Your task to perform on an android device: Toggle the flashlight Image 0: 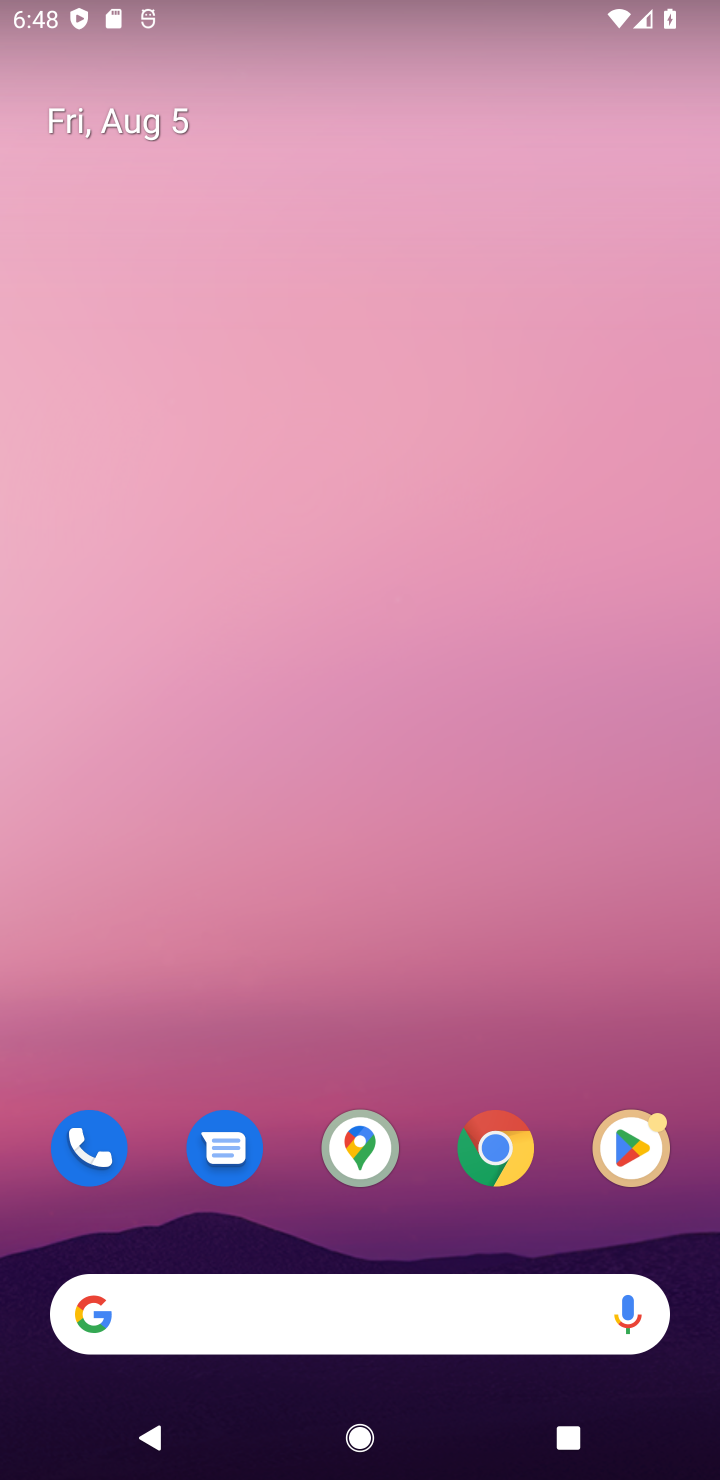
Step 0: drag from (403, 1251) to (397, 54)
Your task to perform on an android device: Toggle the flashlight Image 1: 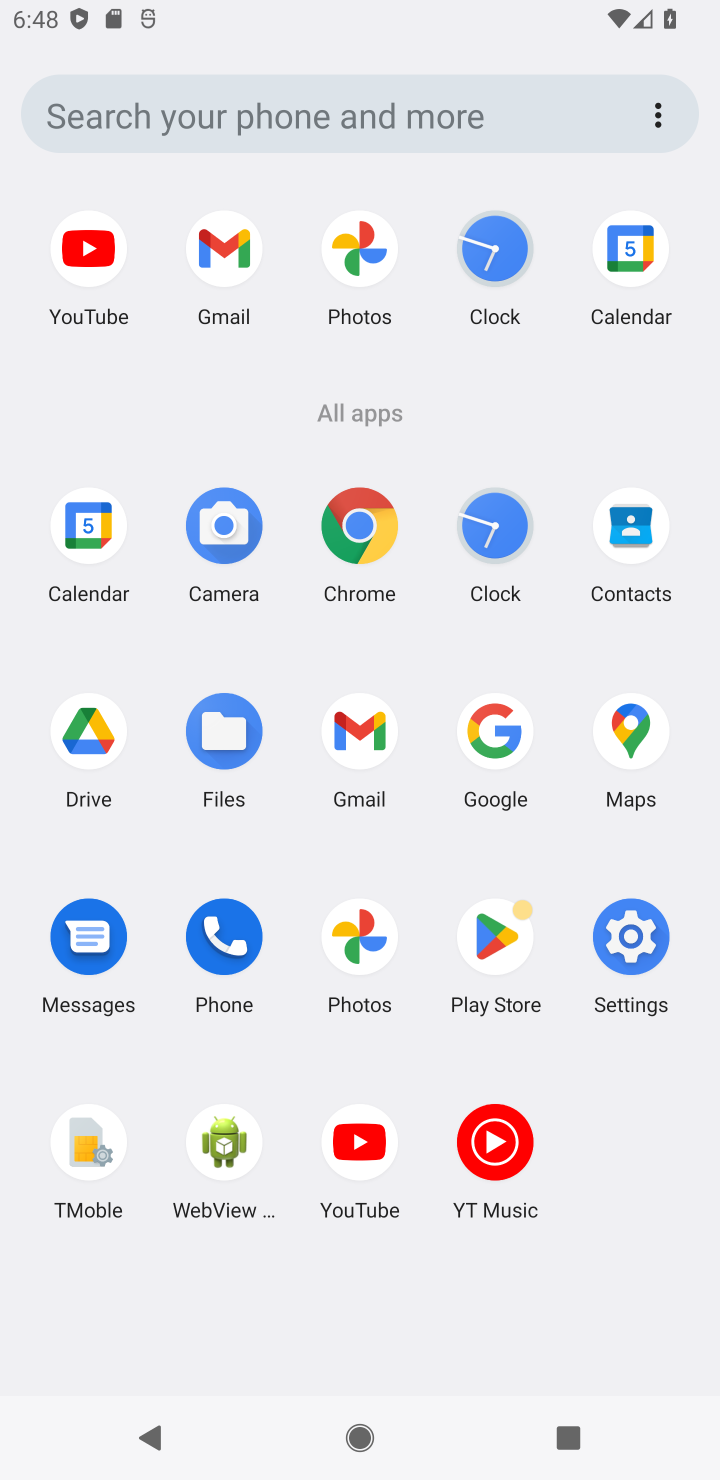
Step 1: click (668, 1047)
Your task to perform on an android device: Toggle the flashlight Image 2: 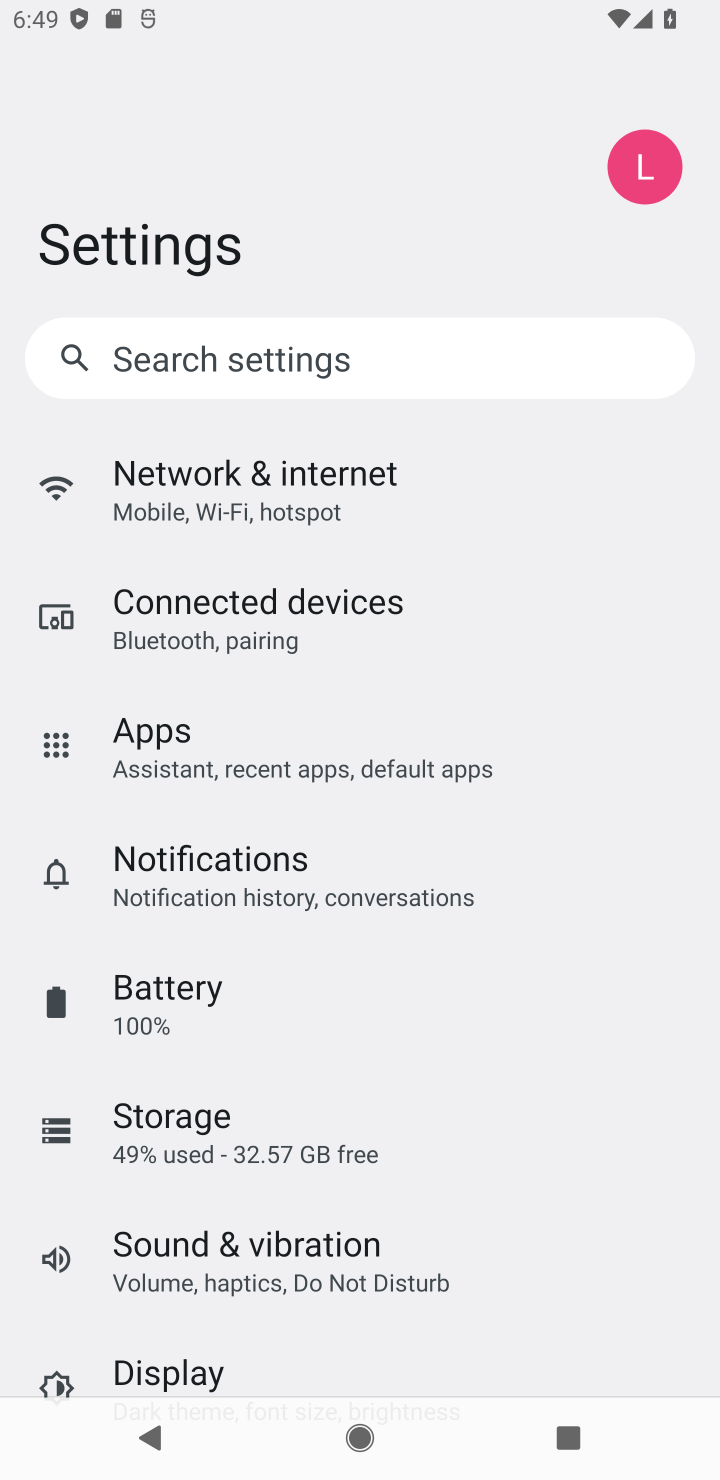
Step 2: task complete